Your task to perform on an android device: When is my next appointment? Image 0: 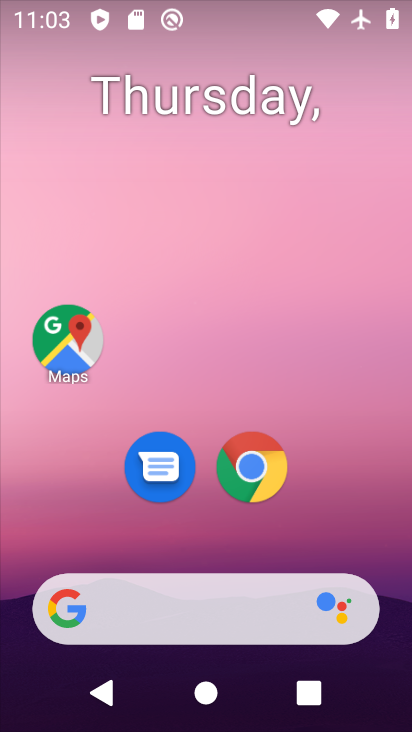
Step 0: drag from (348, 540) to (374, 39)
Your task to perform on an android device: When is my next appointment? Image 1: 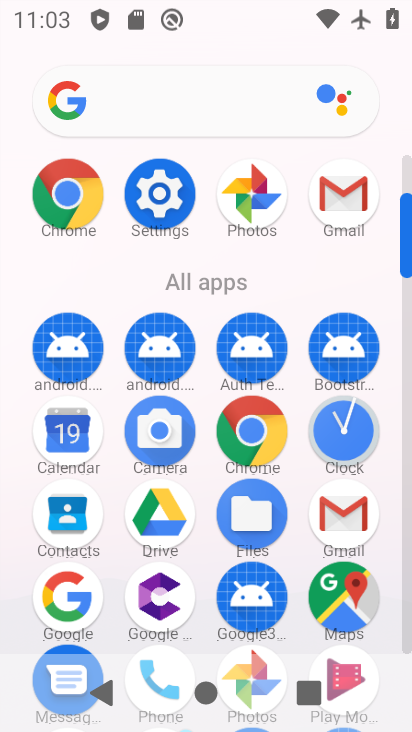
Step 1: click (60, 436)
Your task to perform on an android device: When is my next appointment? Image 2: 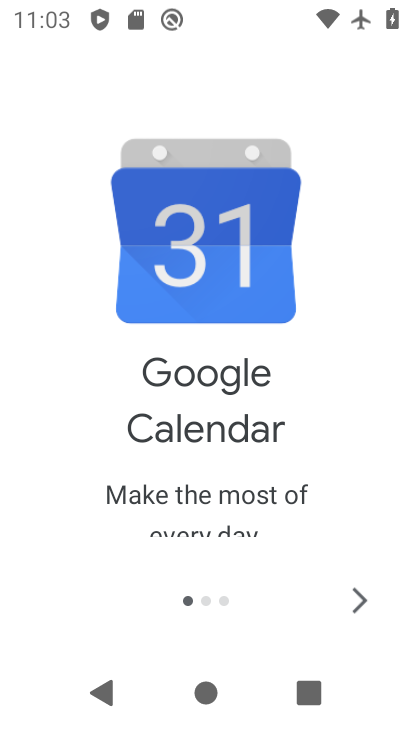
Step 2: click (361, 601)
Your task to perform on an android device: When is my next appointment? Image 3: 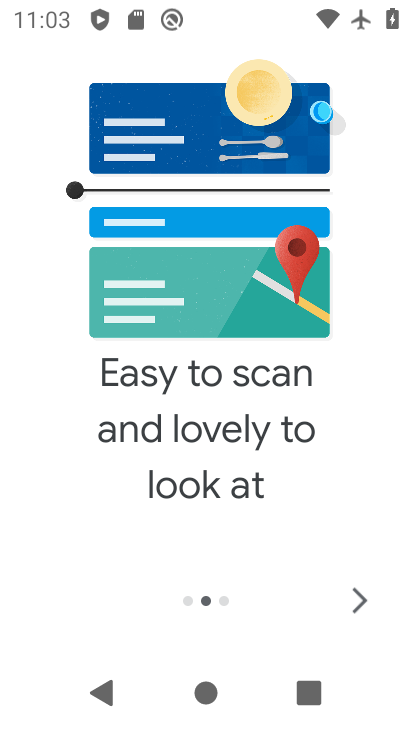
Step 3: click (361, 601)
Your task to perform on an android device: When is my next appointment? Image 4: 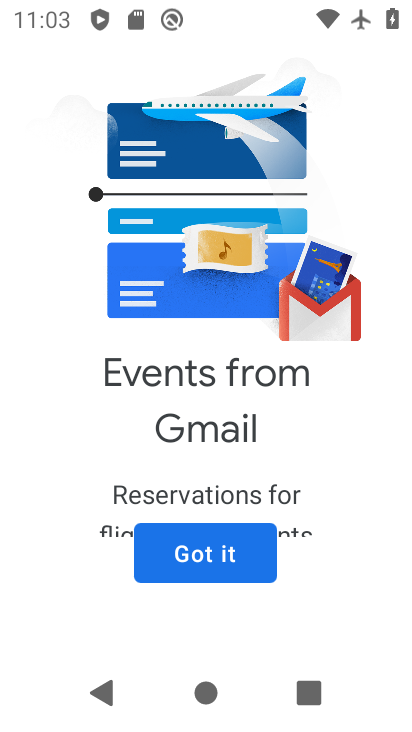
Step 4: click (182, 556)
Your task to perform on an android device: When is my next appointment? Image 5: 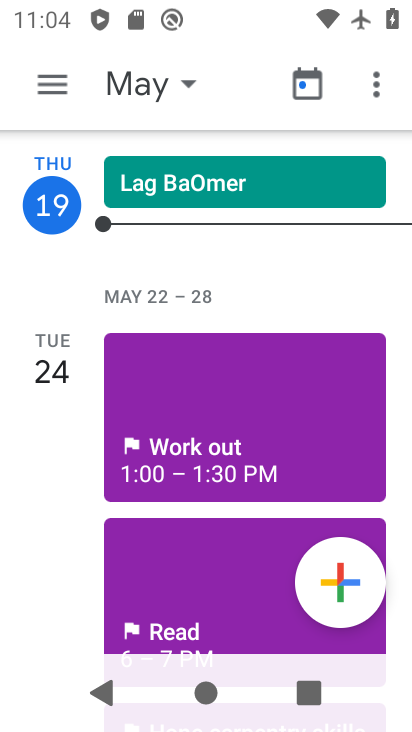
Step 5: click (198, 448)
Your task to perform on an android device: When is my next appointment? Image 6: 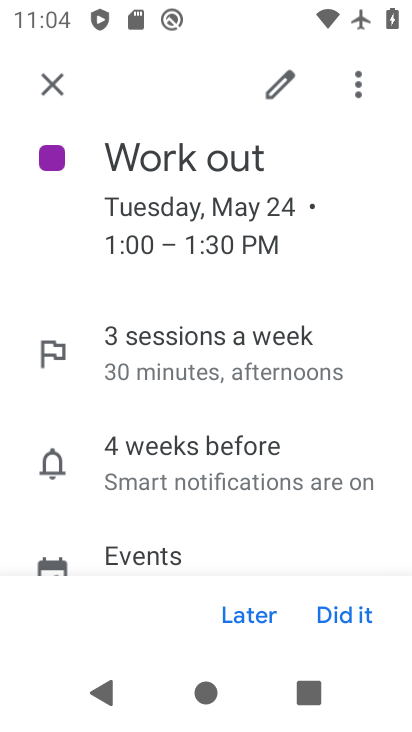
Step 6: task complete